Your task to perform on an android device: Is it going to rain today? Image 0: 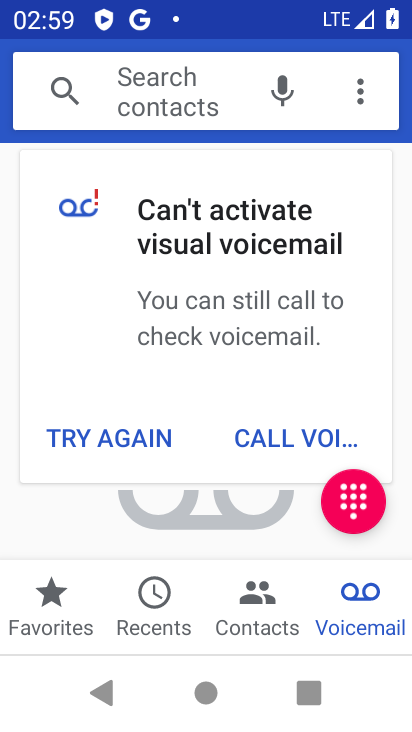
Step 0: press home button
Your task to perform on an android device: Is it going to rain today? Image 1: 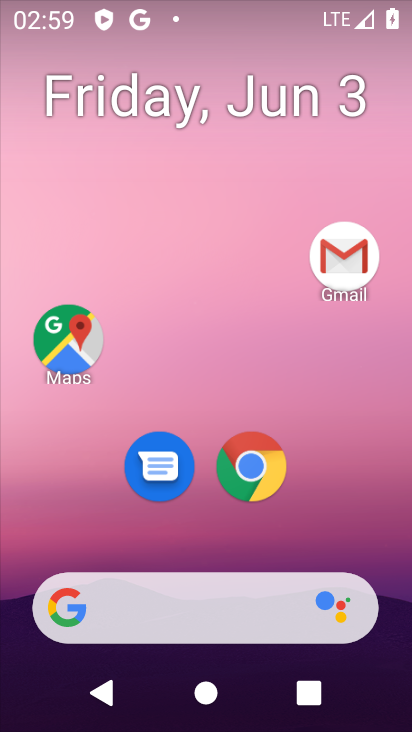
Step 1: drag from (206, 554) to (256, 180)
Your task to perform on an android device: Is it going to rain today? Image 2: 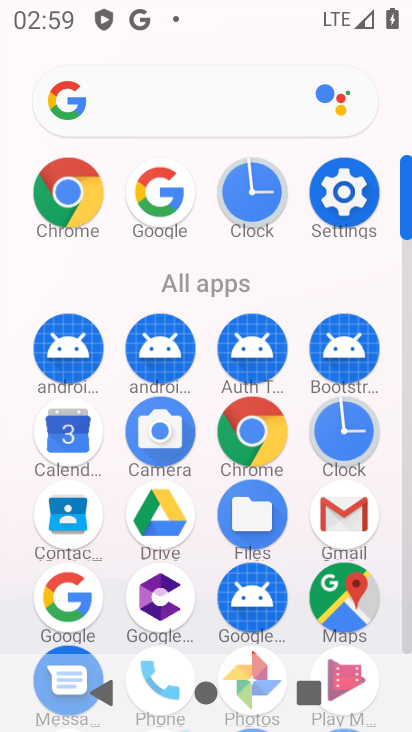
Step 2: click (73, 617)
Your task to perform on an android device: Is it going to rain today? Image 3: 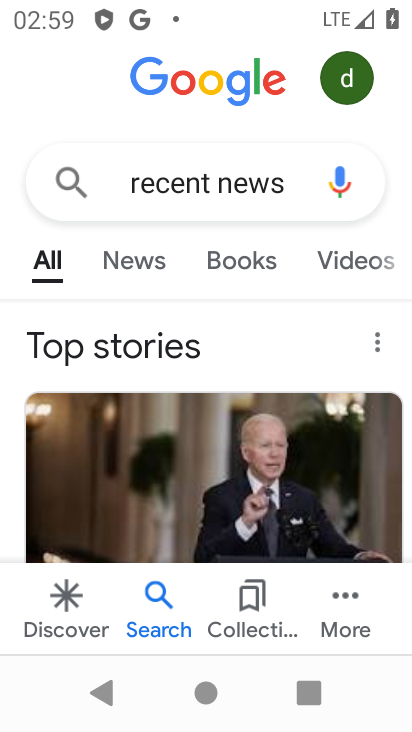
Step 3: click (298, 201)
Your task to perform on an android device: Is it going to rain today? Image 4: 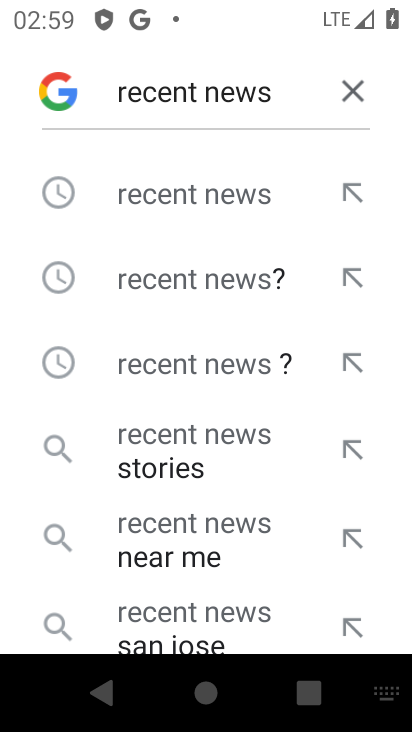
Step 4: click (350, 91)
Your task to perform on an android device: Is it going to rain today? Image 5: 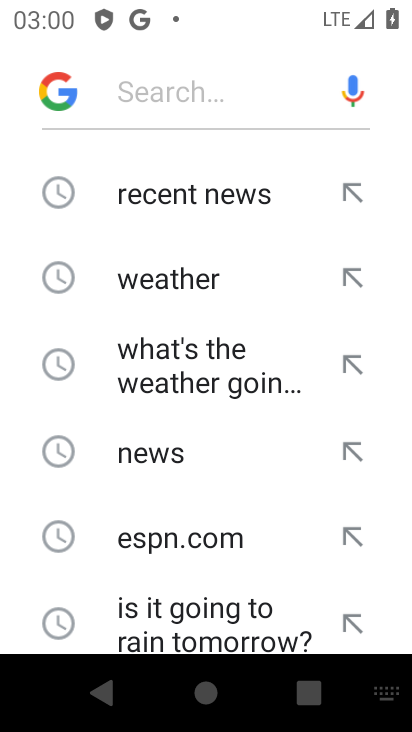
Step 5: click (159, 282)
Your task to perform on an android device: Is it going to rain today? Image 6: 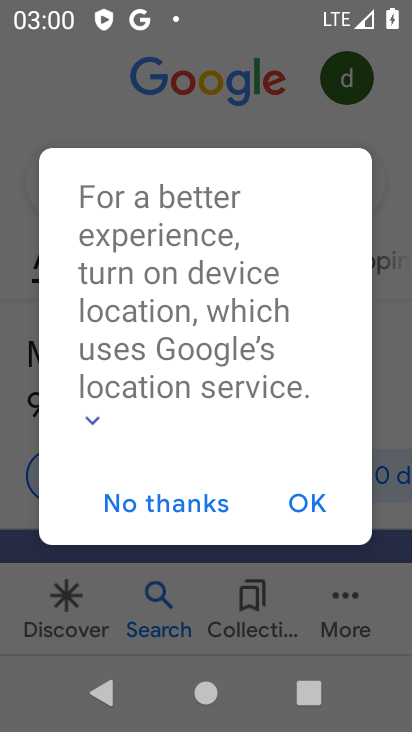
Step 6: drag from (218, 472) to (305, 223)
Your task to perform on an android device: Is it going to rain today? Image 7: 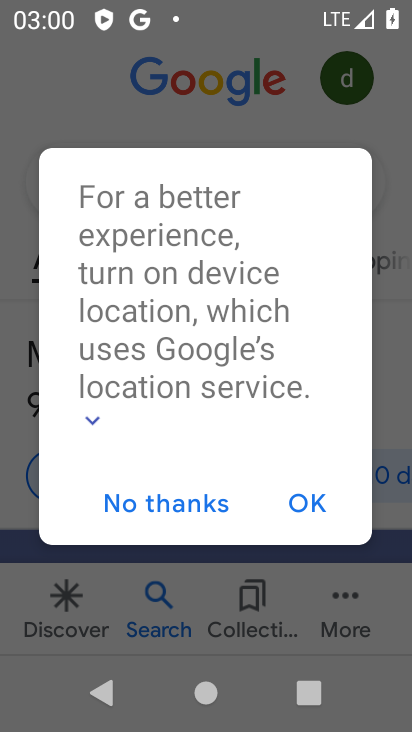
Step 7: click (315, 506)
Your task to perform on an android device: Is it going to rain today? Image 8: 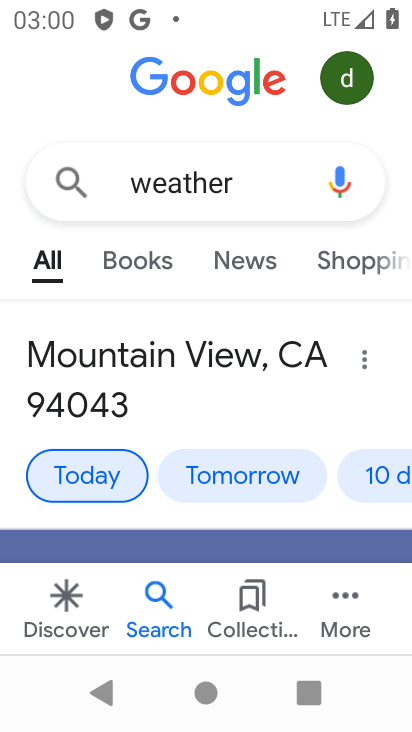
Step 8: task complete